Your task to perform on an android device: toggle priority inbox in the gmail app Image 0: 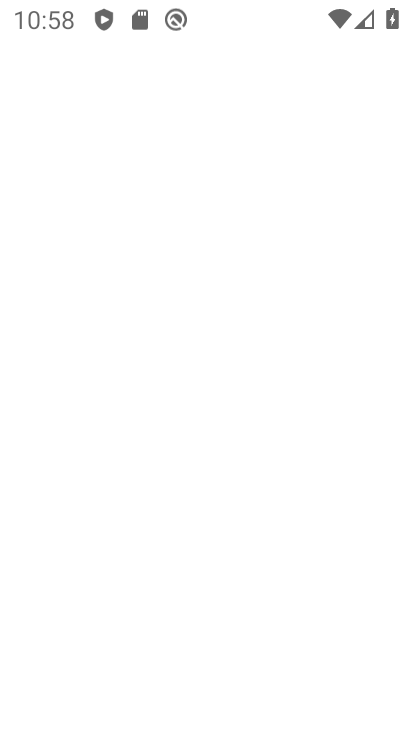
Step 0: press home button
Your task to perform on an android device: toggle priority inbox in the gmail app Image 1: 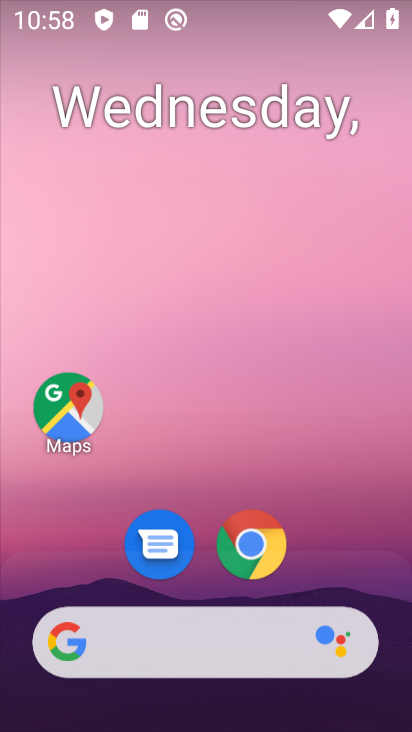
Step 1: drag from (200, 394) to (222, 0)
Your task to perform on an android device: toggle priority inbox in the gmail app Image 2: 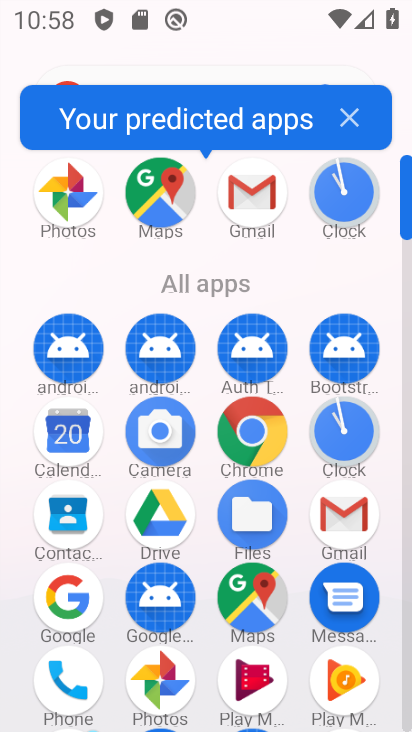
Step 2: click (250, 194)
Your task to perform on an android device: toggle priority inbox in the gmail app Image 3: 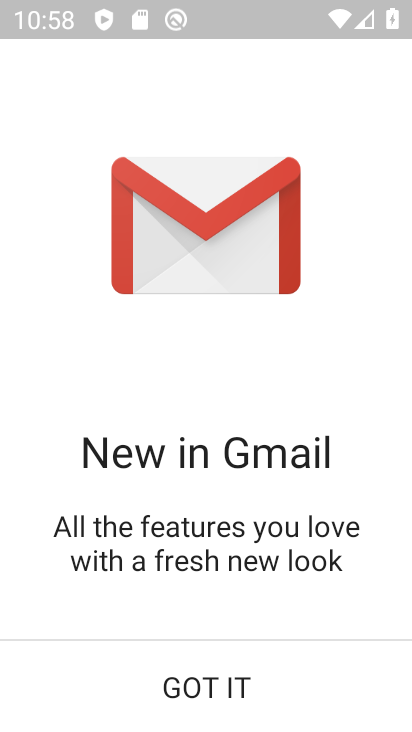
Step 3: click (213, 689)
Your task to perform on an android device: toggle priority inbox in the gmail app Image 4: 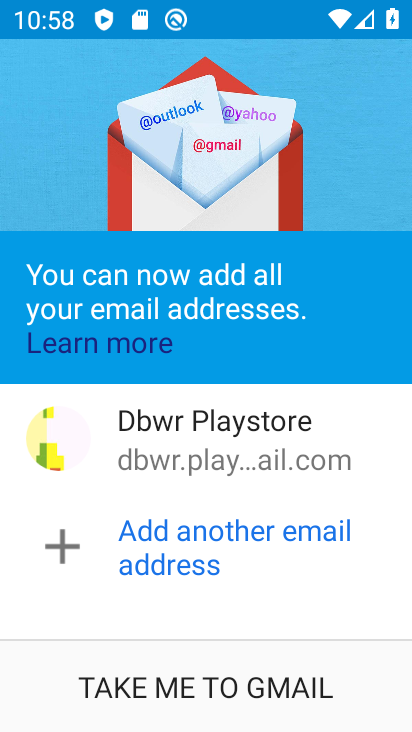
Step 4: click (213, 689)
Your task to perform on an android device: toggle priority inbox in the gmail app Image 5: 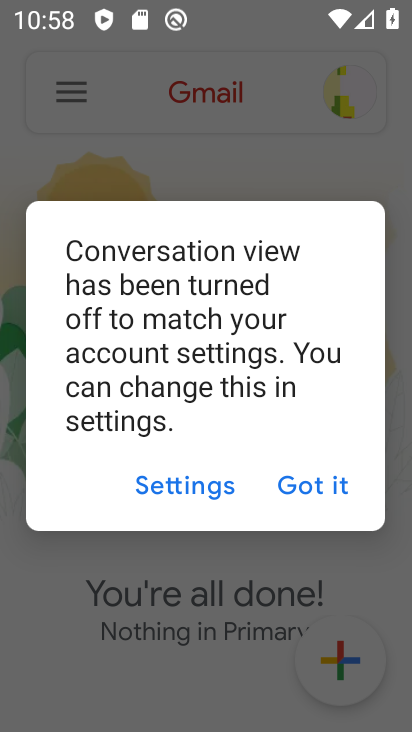
Step 5: click (308, 491)
Your task to perform on an android device: toggle priority inbox in the gmail app Image 6: 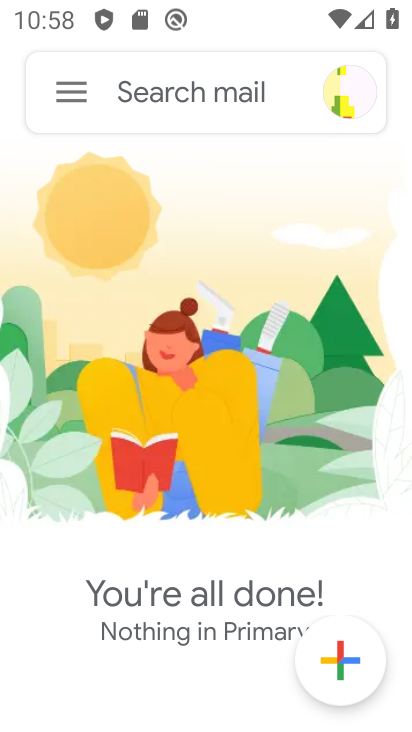
Step 6: click (76, 78)
Your task to perform on an android device: toggle priority inbox in the gmail app Image 7: 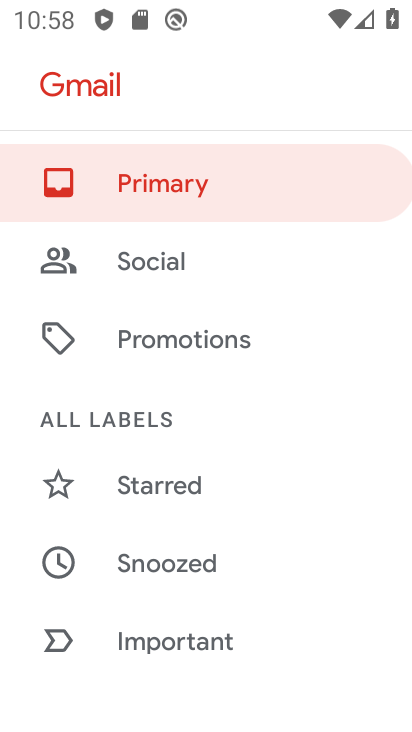
Step 7: drag from (176, 619) to (223, 179)
Your task to perform on an android device: toggle priority inbox in the gmail app Image 8: 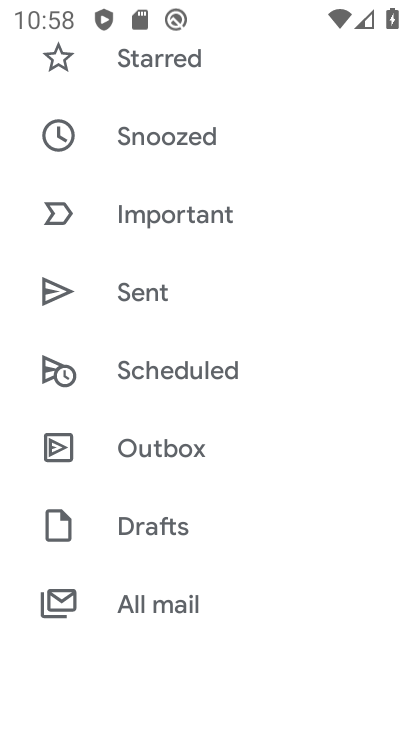
Step 8: drag from (177, 566) to (218, 257)
Your task to perform on an android device: toggle priority inbox in the gmail app Image 9: 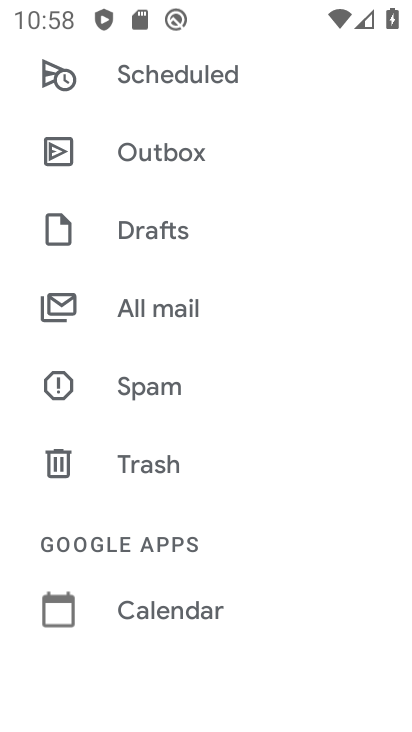
Step 9: drag from (171, 534) to (210, 150)
Your task to perform on an android device: toggle priority inbox in the gmail app Image 10: 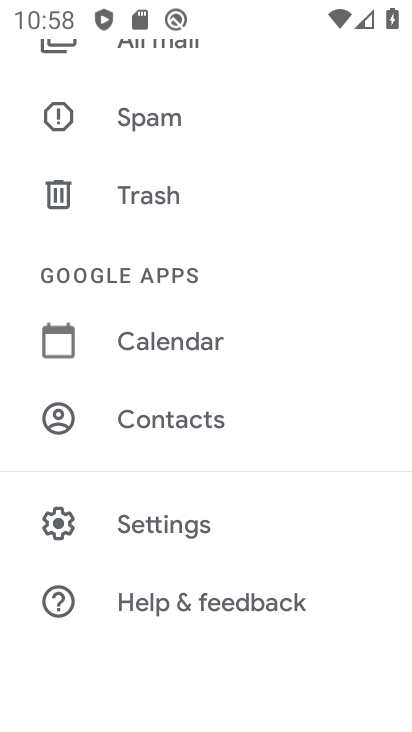
Step 10: click (178, 533)
Your task to perform on an android device: toggle priority inbox in the gmail app Image 11: 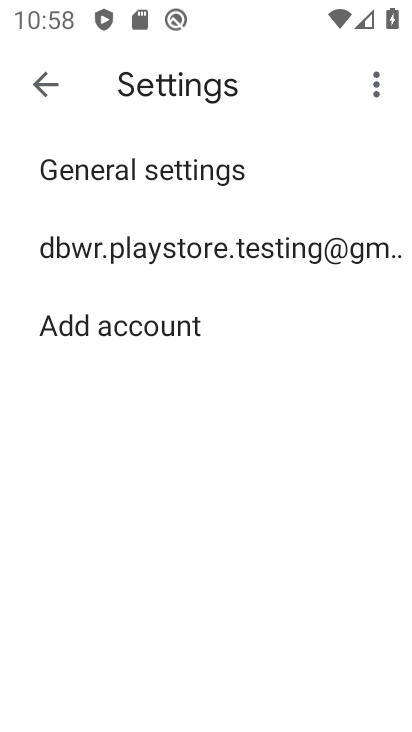
Step 11: click (170, 243)
Your task to perform on an android device: toggle priority inbox in the gmail app Image 12: 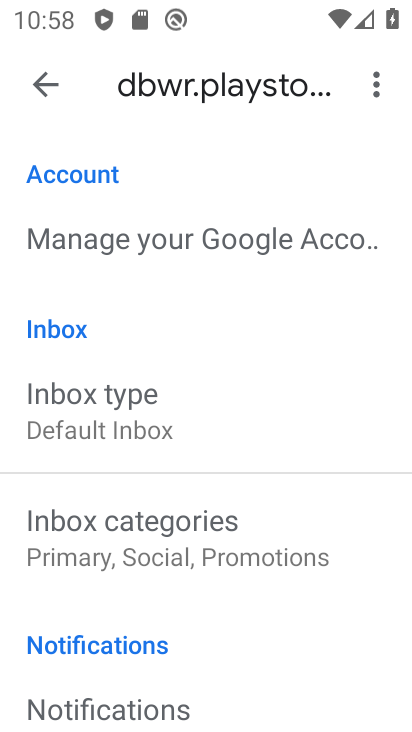
Step 12: click (169, 399)
Your task to perform on an android device: toggle priority inbox in the gmail app Image 13: 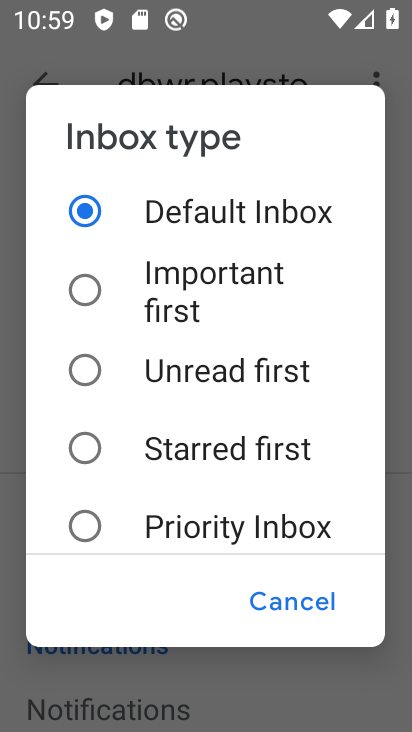
Step 13: click (88, 531)
Your task to perform on an android device: toggle priority inbox in the gmail app Image 14: 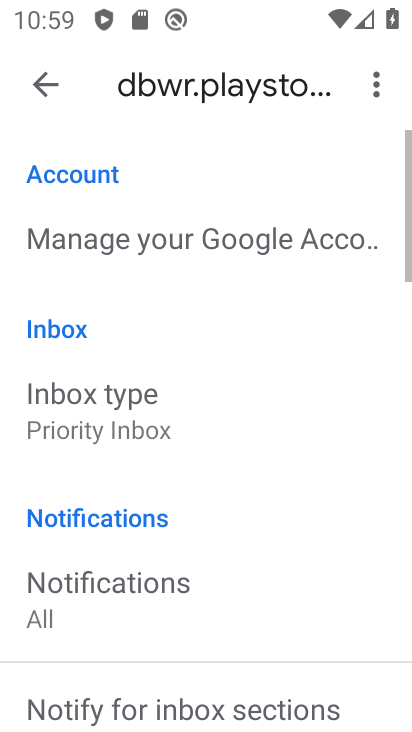
Step 14: click (88, 531)
Your task to perform on an android device: toggle priority inbox in the gmail app Image 15: 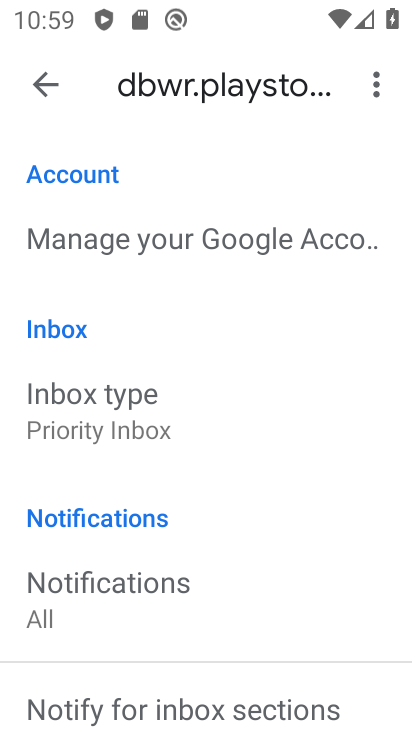
Step 15: task complete